Your task to perform on an android device: Open accessibility settings Image 0: 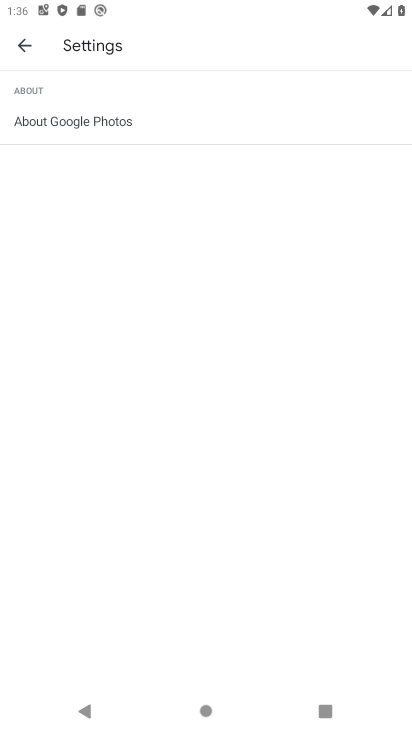
Step 0: drag from (178, 559) to (206, 311)
Your task to perform on an android device: Open accessibility settings Image 1: 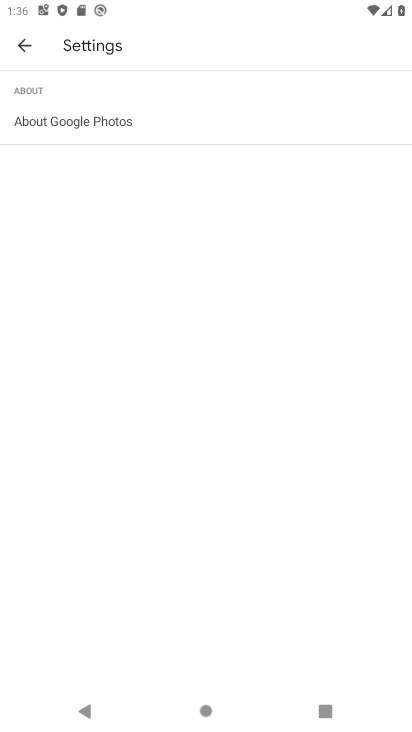
Step 1: drag from (174, 475) to (311, 212)
Your task to perform on an android device: Open accessibility settings Image 2: 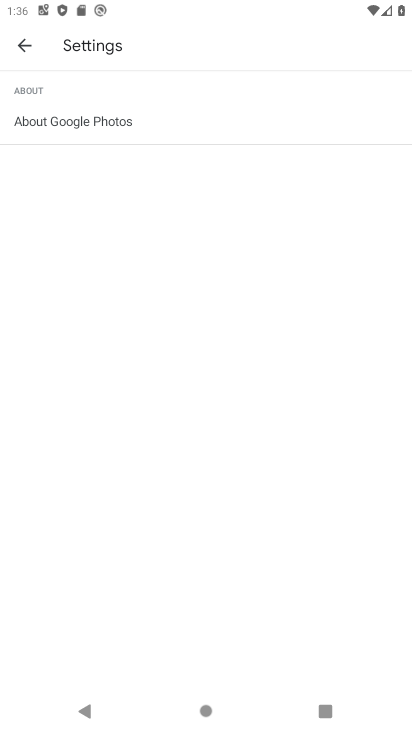
Step 2: press home button
Your task to perform on an android device: Open accessibility settings Image 3: 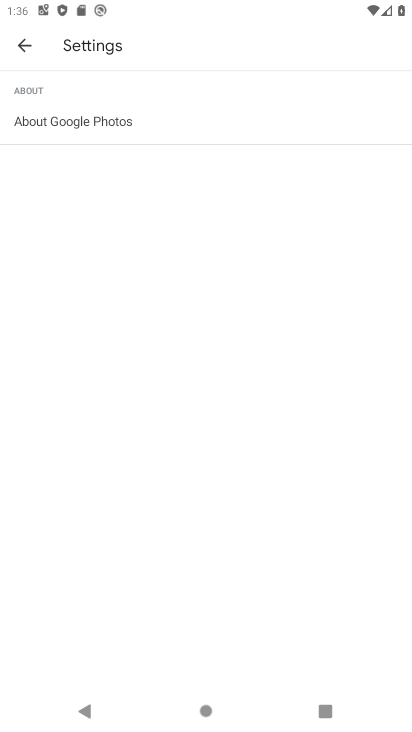
Step 3: press home button
Your task to perform on an android device: Open accessibility settings Image 4: 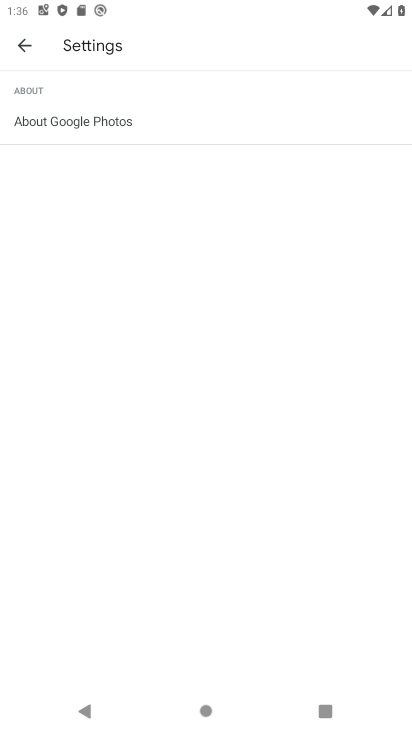
Step 4: click (250, 91)
Your task to perform on an android device: Open accessibility settings Image 5: 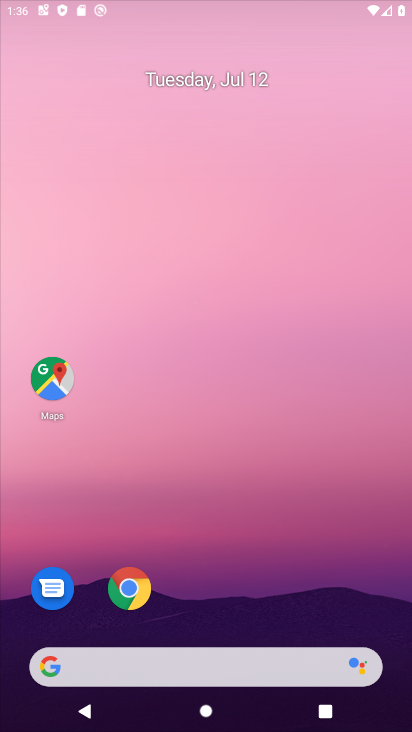
Step 5: drag from (225, 493) to (275, 31)
Your task to perform on an android device: Open accessibility settings Image 6: 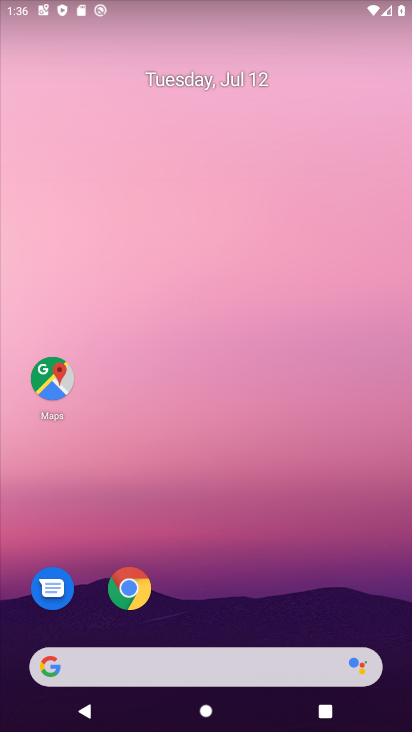
Step 6: drag from (204, 546) to (209, 154)
Your task to perform on an android device: Open accessibility settings Image 7: 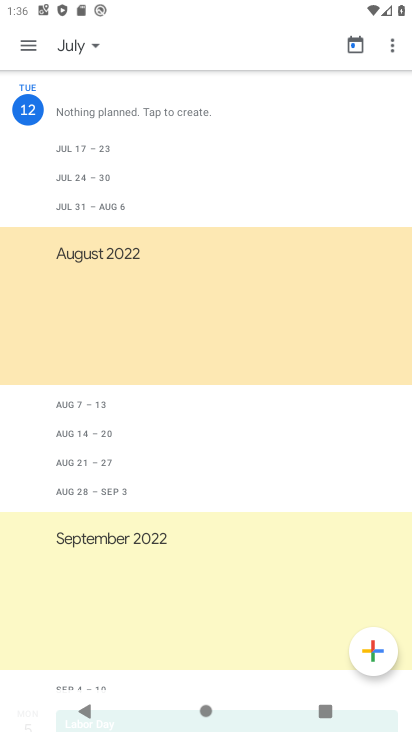
Step 7: drag from (200, 607) to (207, 179)
Your task to perform on an android device: Open accessibility settings Image 8: 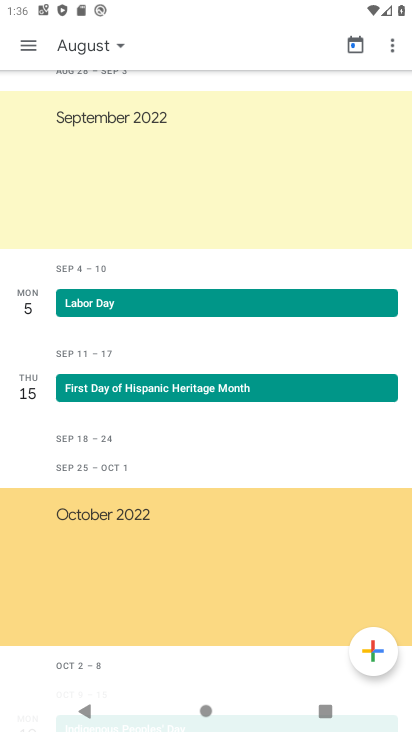
Step 8: click (87, 43)
Your task to perform on an android device: Open accessibility settings Image 9: 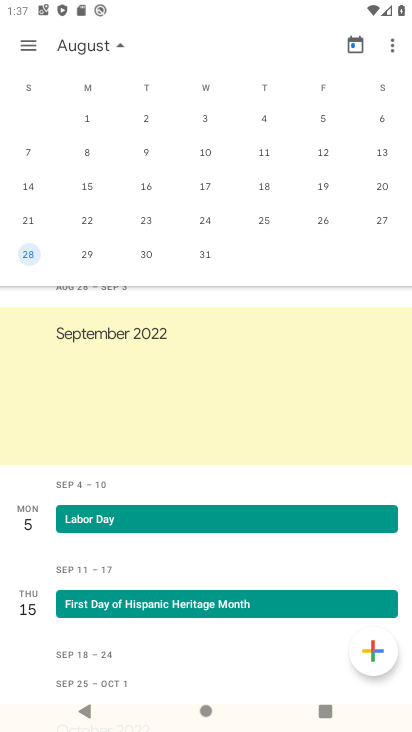
Step 9: press home button
Your task to perform on an android device: Open accessibility settings Image 10: 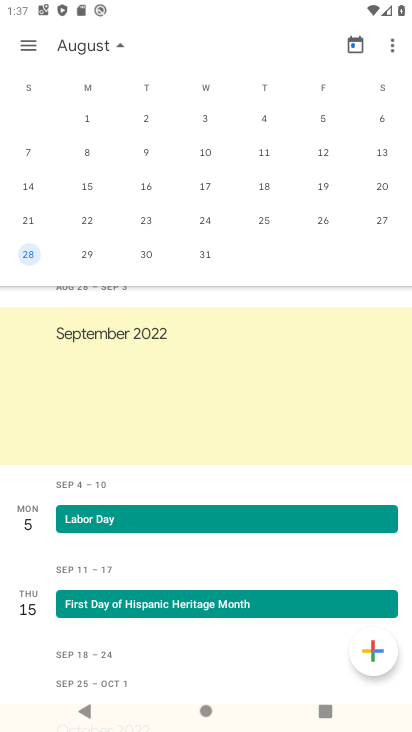
Step 10: drag from (190, 448) to (236, 201)
Your task to perform on an android device: Open accessibility settings Image 11: 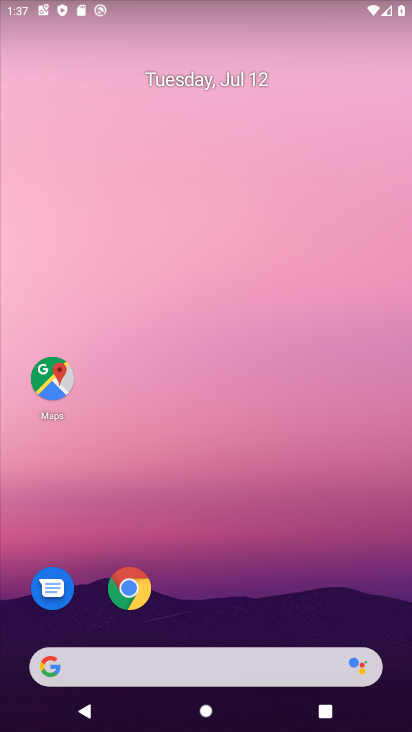
Step 11: drag from (186, 605) to (194, 107)
Your task to perform on an android device: Open accessibility settings Image 12: 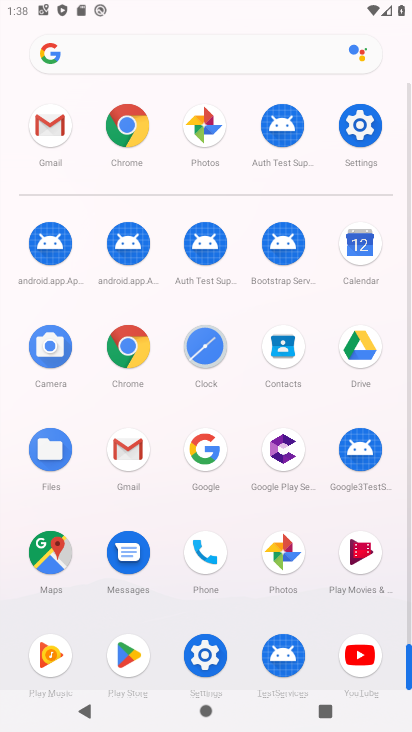
Step 12: click (199, 664)
Your task to perform on an android device: Open accessibility settings Image 13: 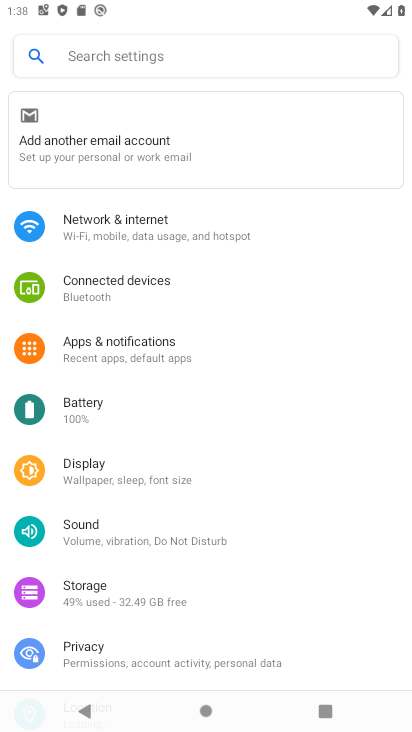
Step 13: drag from (189, 599) to (147, 15)
Your task to perform on an android device: Open accessibility settings Image 14: 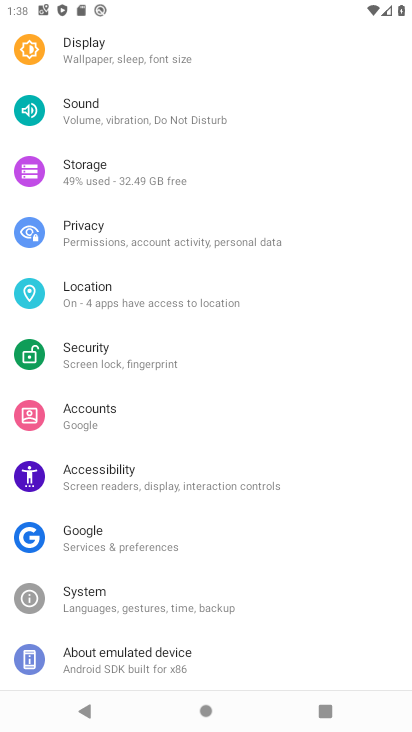
Step 14: click (149, 477)
Your task to perform on an android device: Open accessibility settings Image 15: 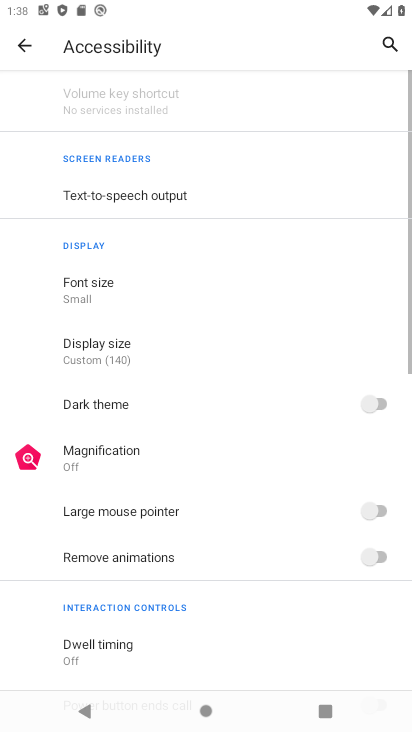
Step 15: task complete